Your task to perform on an android device: open app "Flipkart Online Shopping App" (install if not already installed) Image 0: 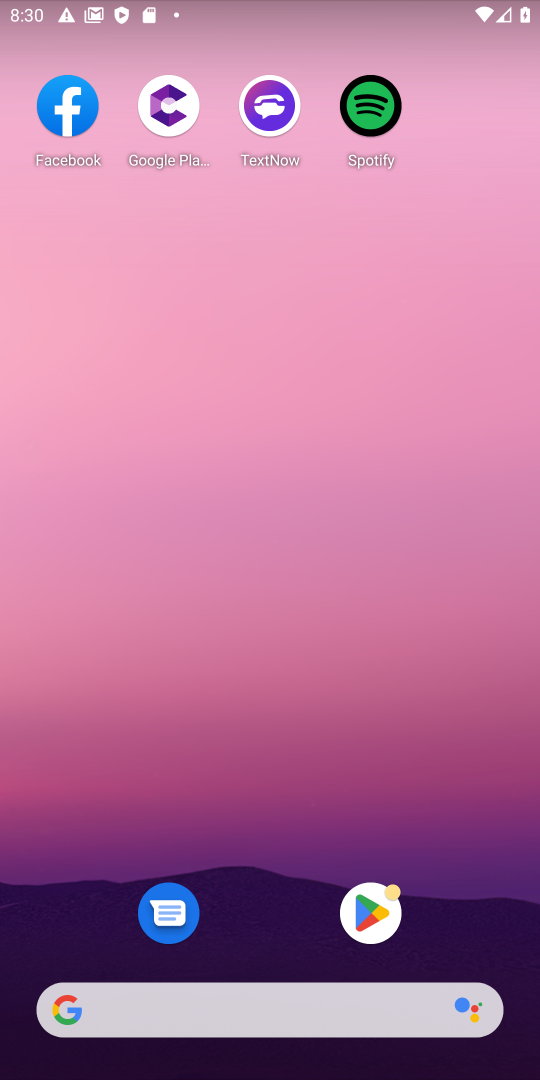
Step 0: click (393, 903)
Your task to perform on an android device: open app "Flipkart Online Shopping App" (install if not already installed) Image 1: 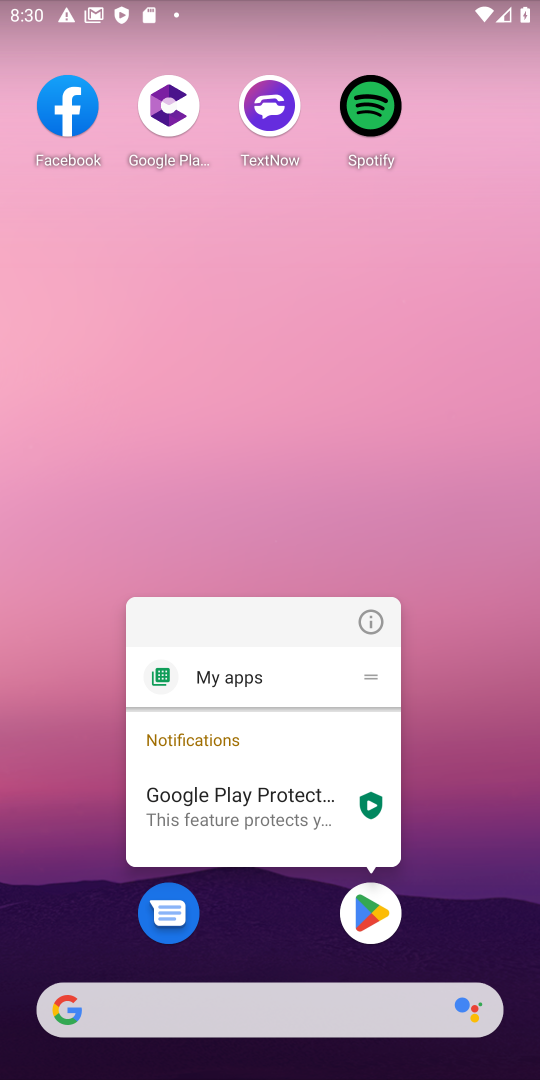
Step 1: click (387, 903)
Your task to perform on an android device: open app "Flipkart Online Shopping App" (install if not already installed) Image 2: 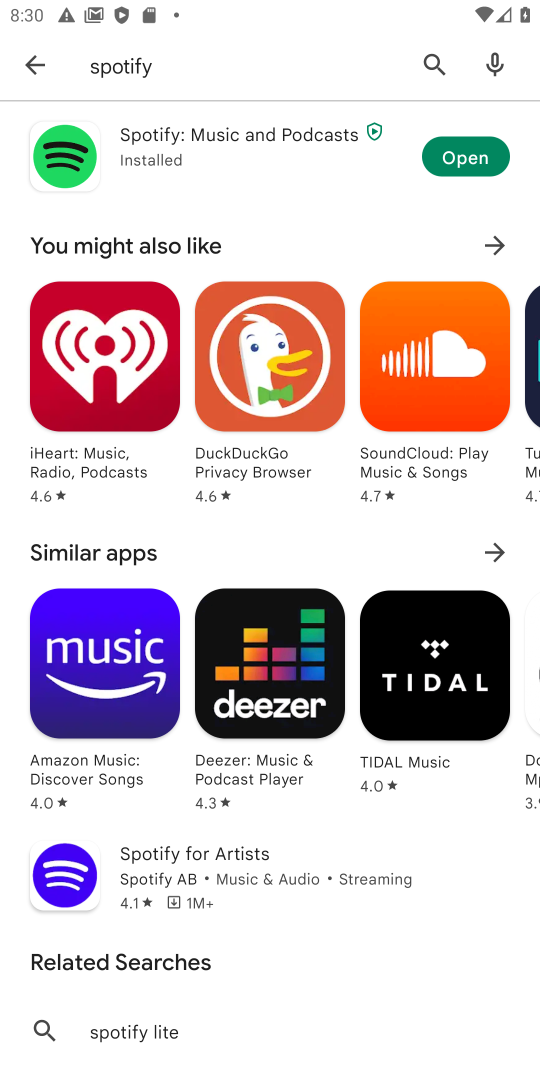
Step 2: click (385, 903)
Your task to perform on an android device: open app "Flipkart Online Shopping App" (install if not already installed) Image 3: 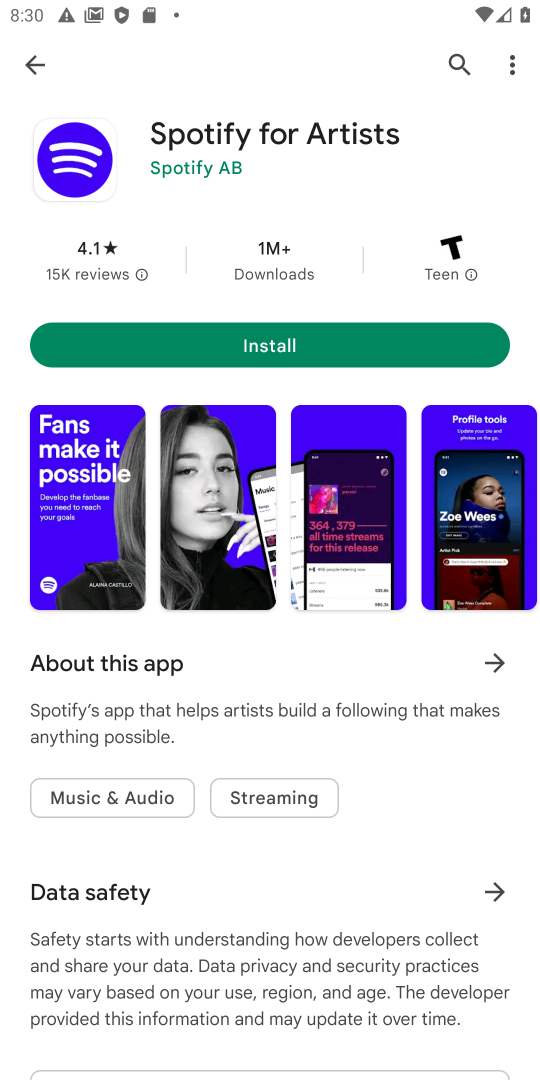
Step 3: click (448, 61)
Your task to perform on an android device: open app "Flipkart Online Shopping App" (install if not already installed) Image 4: 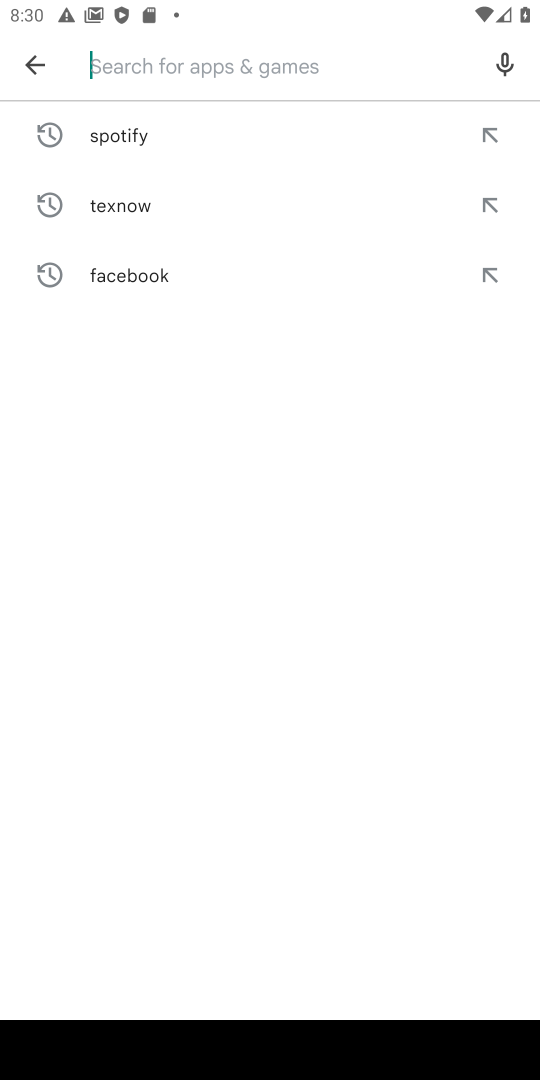
Step 4: type "flpkart"
Your task to perform on an android device: open app "Flipkart Online Shopping App" (install if not already installed) Image 5: 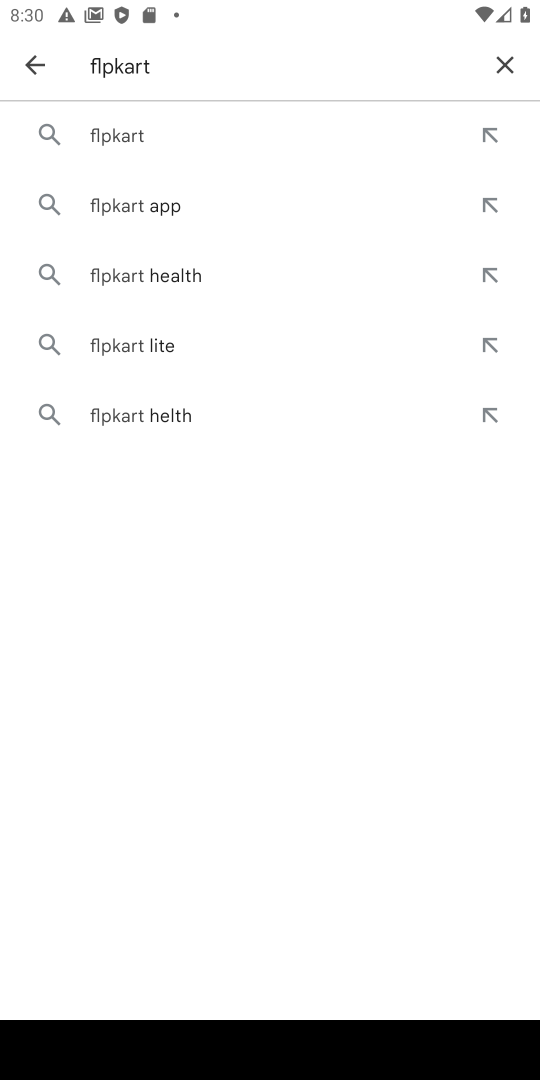
Step 5: click (198, 148)
Your task to perform on an android device: open app "Flipkart Online Shopping App" (install if not already installed) Image 6: 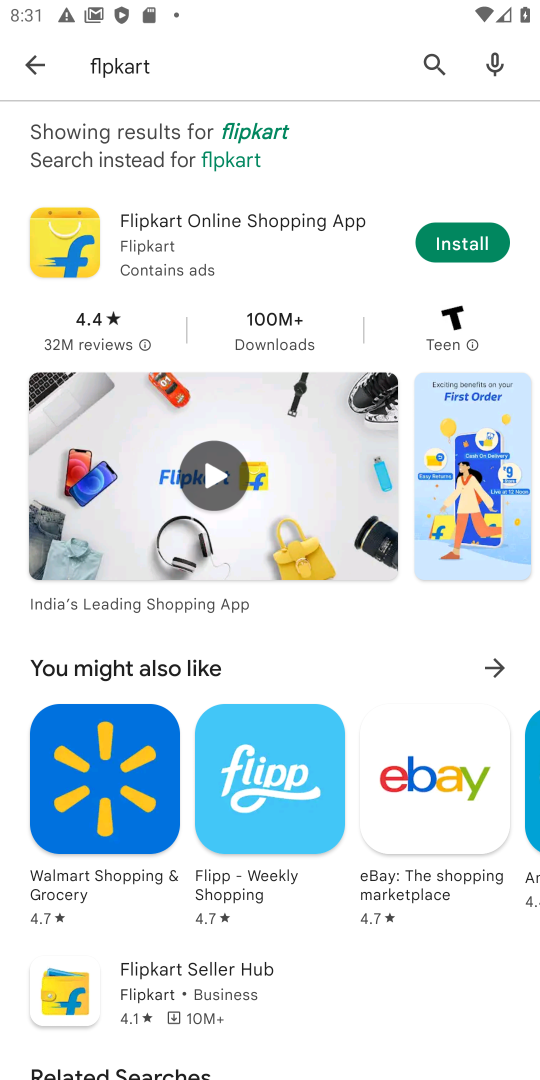
Step 6: click (455, 251)
Your task to perform on an android device: open app "Flipkart Online Shopping App" (install if not already installed) Image 7: 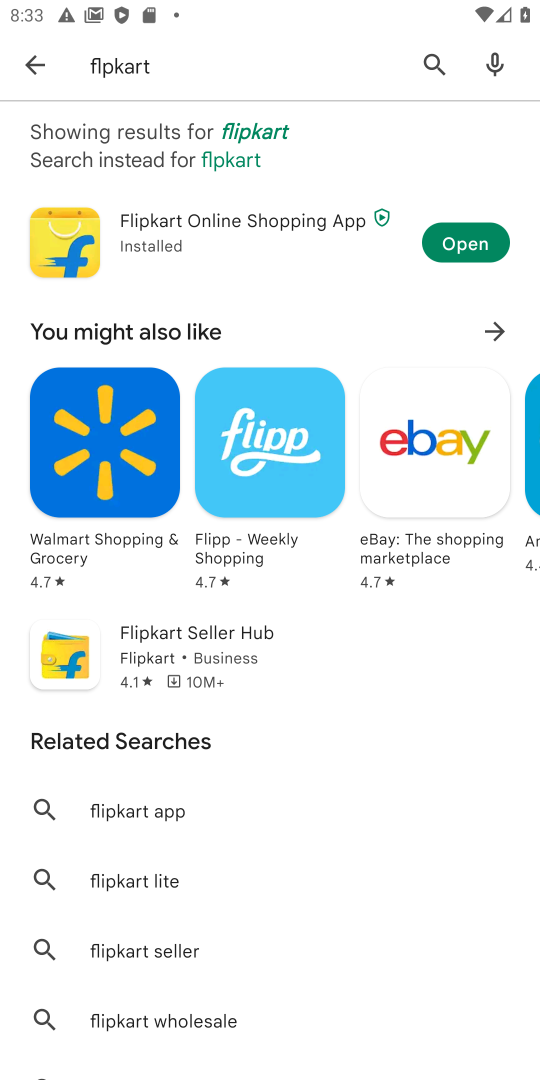
Step 7: click (460, 237)
Your task to perform on an android device: open app "Flipkart Online Shopping App" (install if not already installed) Image 8: 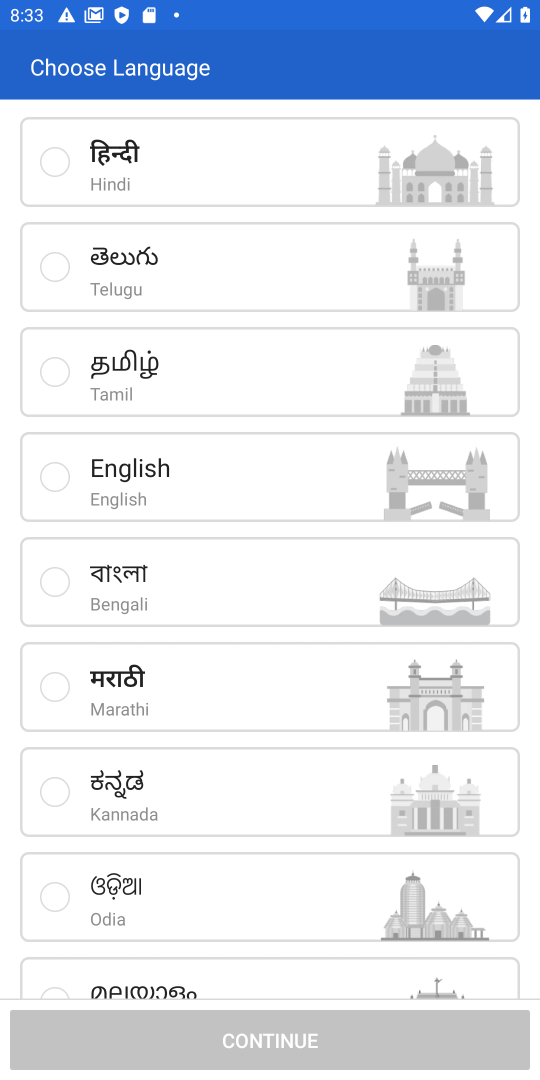
Step 8: task complete